Your task to perform on an android device: Go to Maps Image 0: 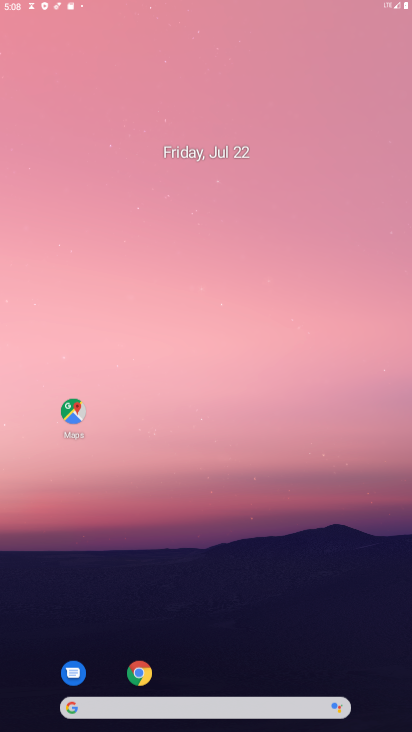
Step 0: press home button
Your task to perform on an android device: Go to Maps Image 1: 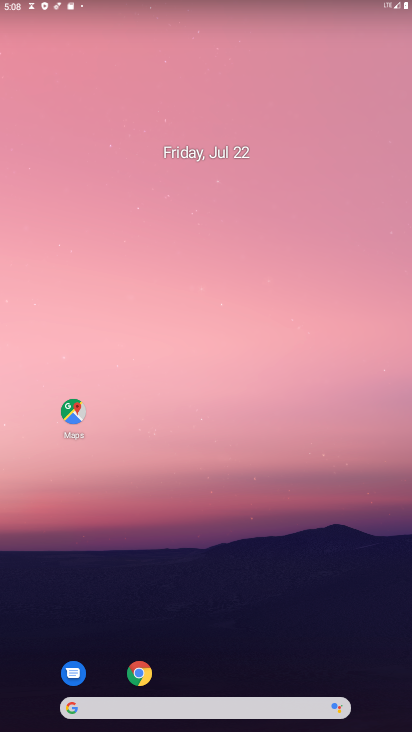
Step 1: drag from (218, 622) to (204, 86)
Your task to perform on an android device: Go to Maps Image 2: 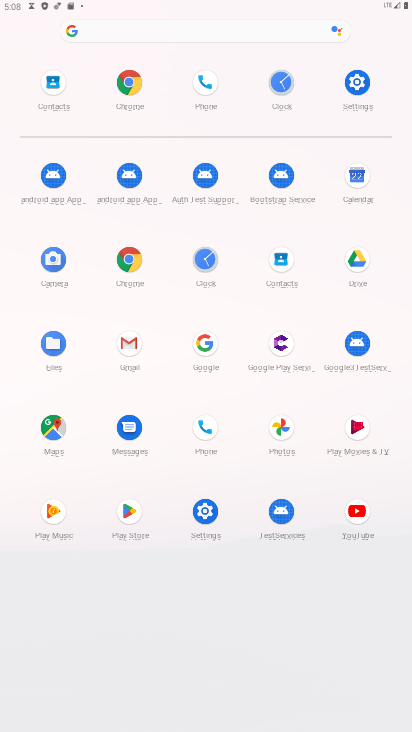
Step 2: click (58, 428)
Your task to perform on an android device: Go to Maps Image 3: 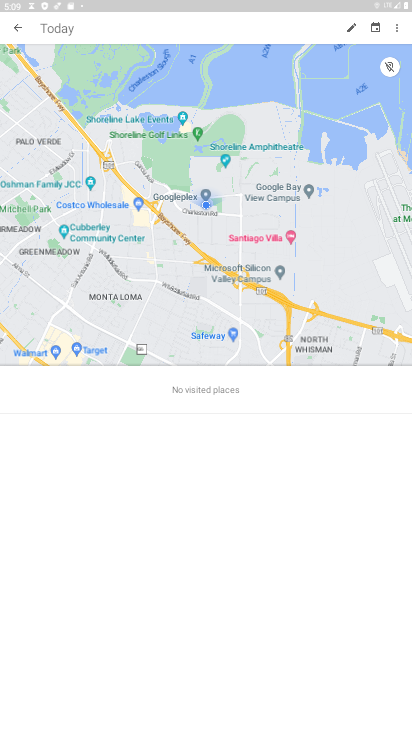
Step 3: task complete